Your task to perform on an android device: Open CNN.com Image 0: 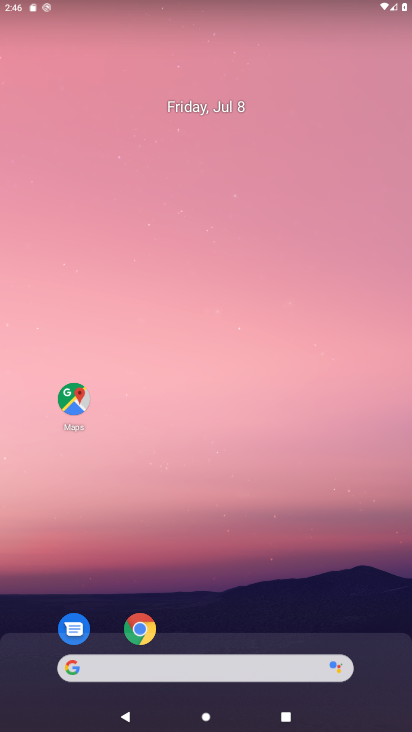
Step 0: click (137, 623)
Your task to perform on an android device: Open CNN.com Image 1: 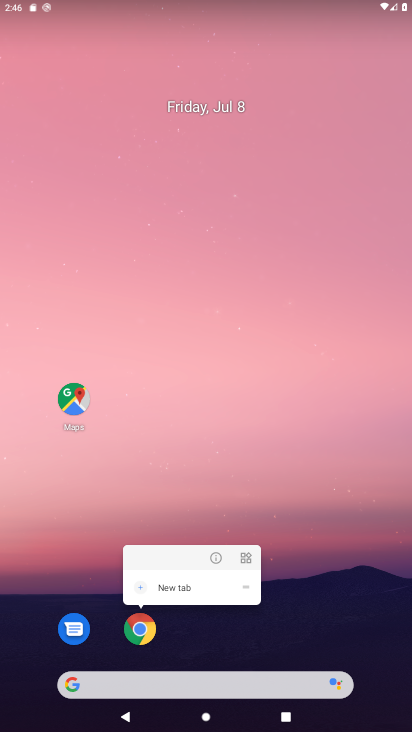
Step 1: click (137, 627)
Your task to perform on an android device: Open CNN.com Image 2: 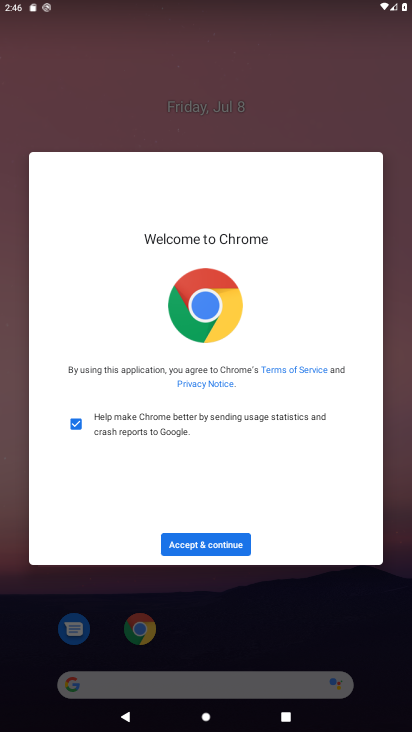
Step 2: click (226, 540)
Your task to perform on an android device: Open CNN.com Image 3: 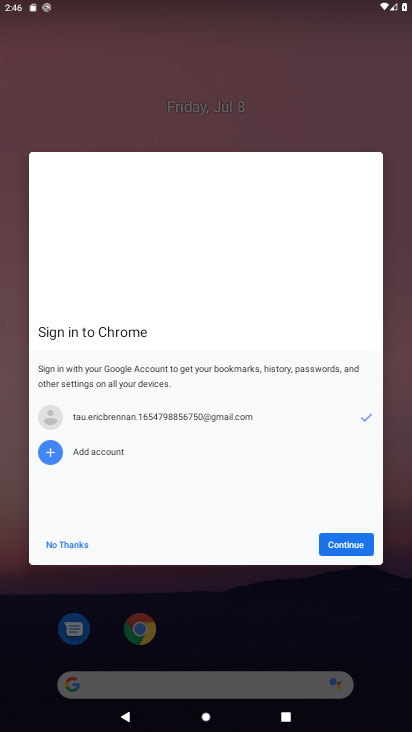
Step 3: click (350, 542)
Your task to perform on an android device: Open CNN.com Image 4: 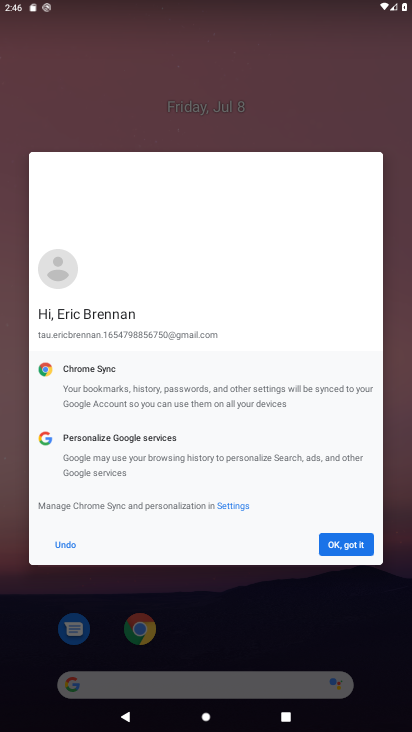
Step 4: click (350, 542)
Your task to perform on an android device: Open CNN.com Image 5: 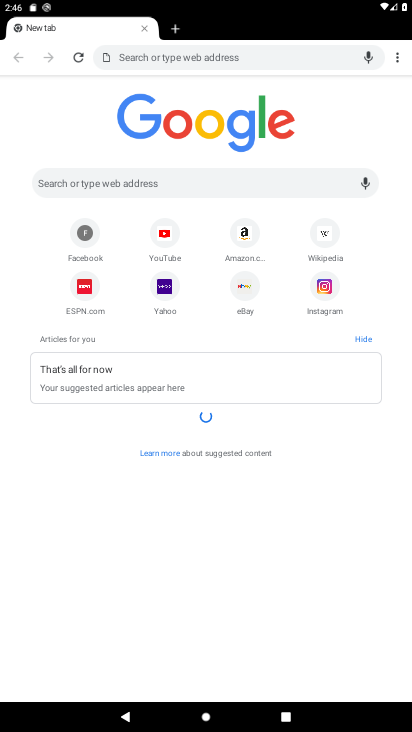
Step 5: click (98, 187)
Your task to perform on an android device: Open CNN.com Image 6: 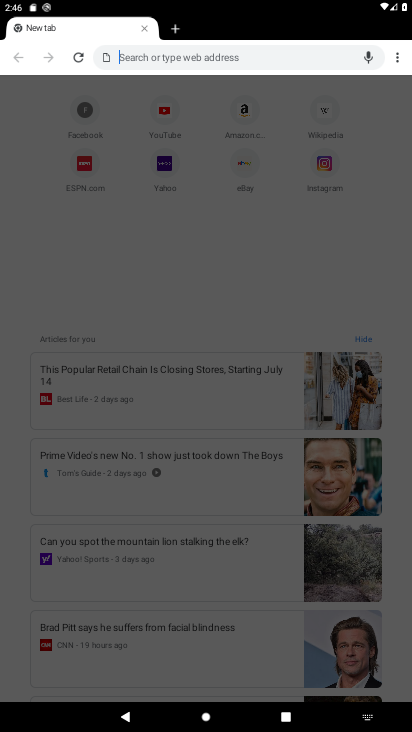
Step 6: type "CNN.com"
Your task to perform on an android device: Open CNN.com Image 7: 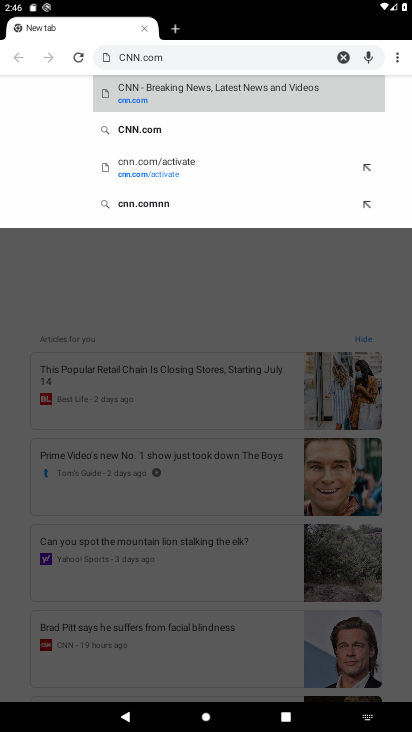
Step 7: click (212, 98)
Your task to perform on an android device: Open CNN.com Image 8: 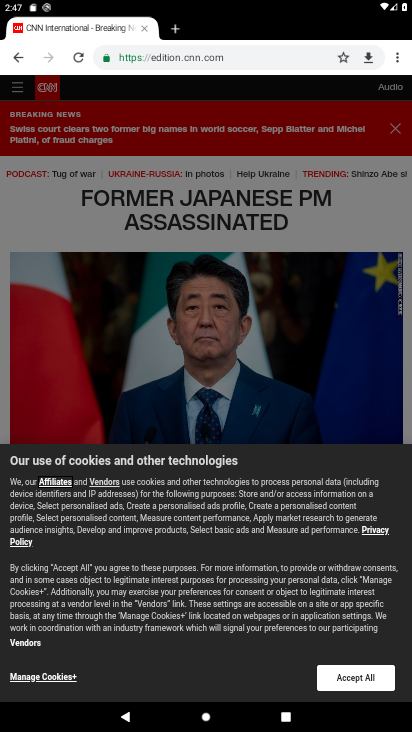
Step 8: click (337, 683)
Your task to perform on an android device: Open CNN.com Image 9: 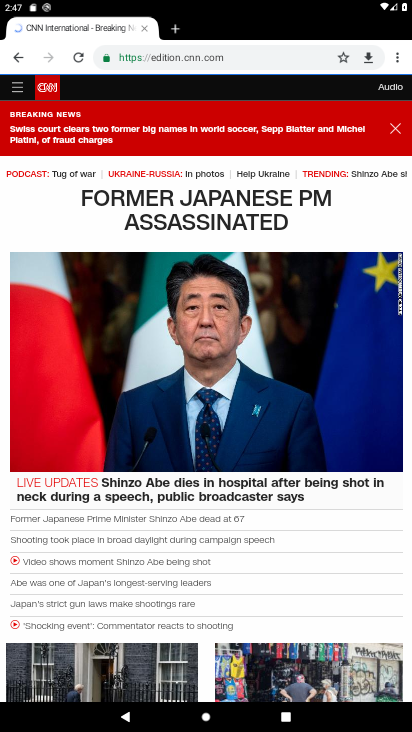
Step 9: task complete